Your task to perform on an android device: turn on improve location accuracy Image 0: 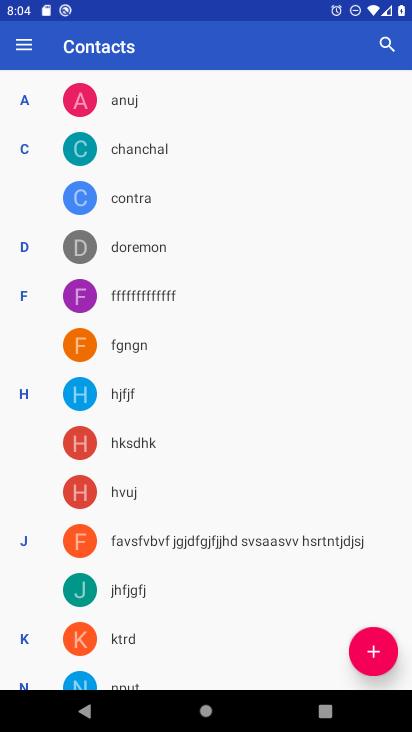
Step 0: press home button
Your task to perform on an android device: turn on improve location accuracy Image 1: 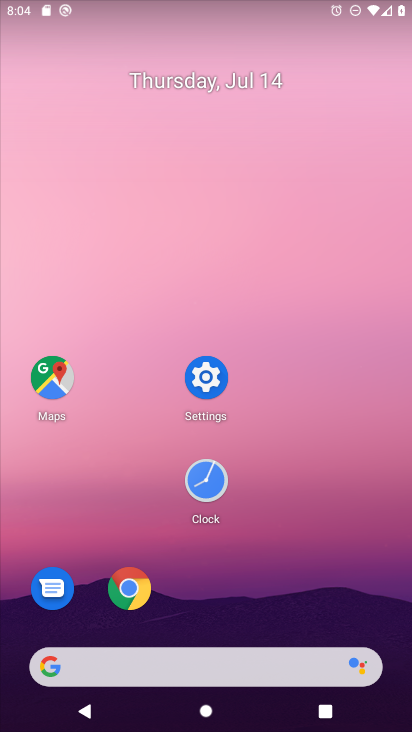
Step 1: click (210, 365)
Your task to perform on an android device: turn on improve location accuracy Image 2: 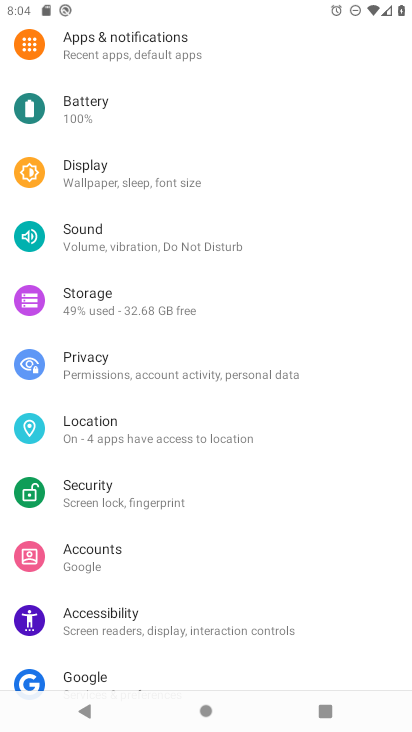
Step 2: click (199, 374)
Your task to perform on an android device: turn on improve location accuracy Image 3: 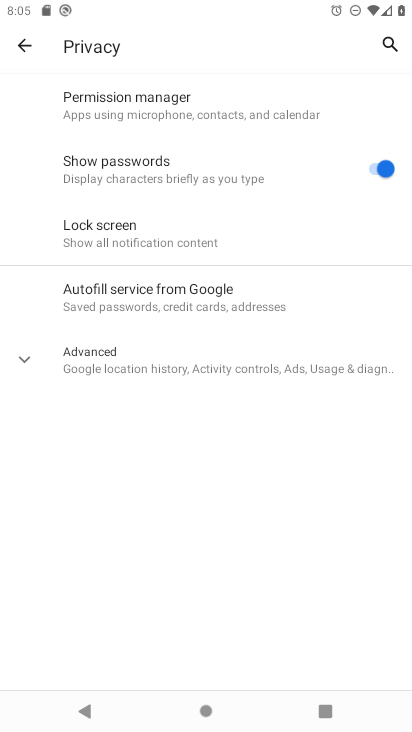
Step 3: click (17, 49)
Your task to perform on an android device: turn on improve location accuracy Image 4: 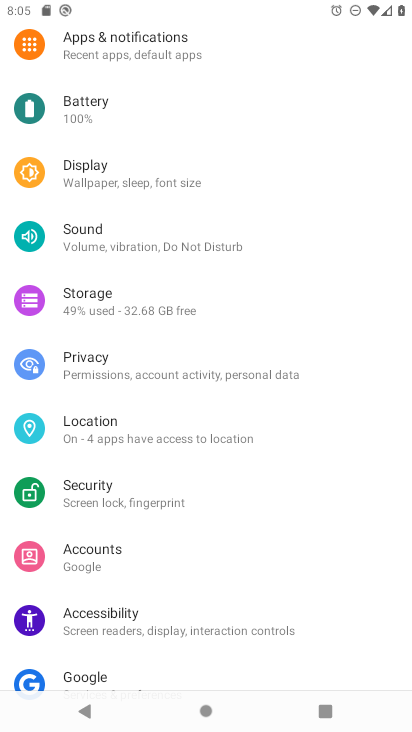
Step 4: click (90, 434)
Your task to perform on an android device: turn on improve location accuracy Image 5: 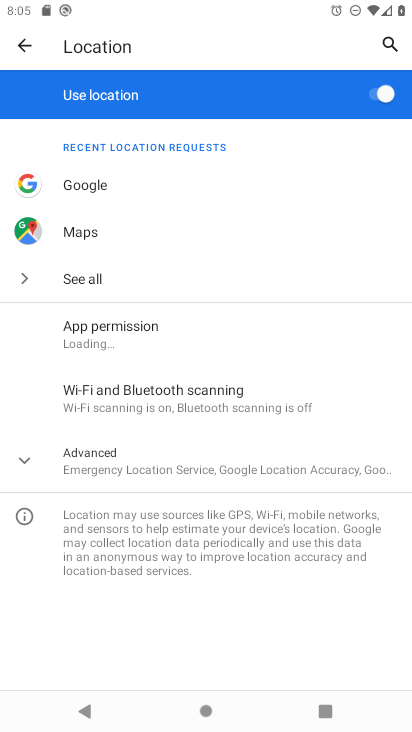
Step 5: click (17, 458)
Your task to perform on an android device: turn on improve location accuracy Image 6: 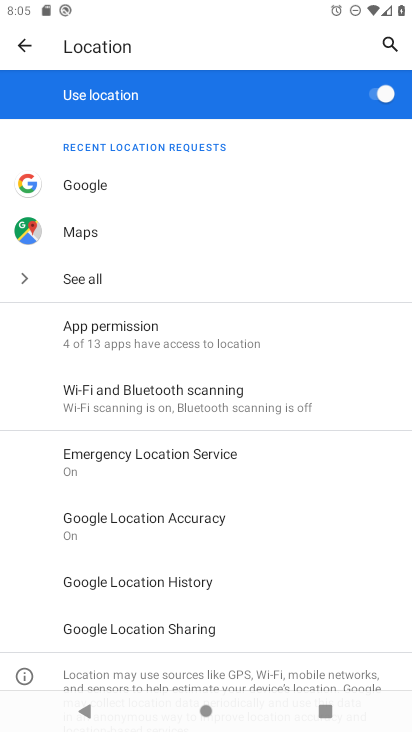
Step 6: click (176, 525)
Your task to perform on an android device: turn on improve location accuracy Image 7: 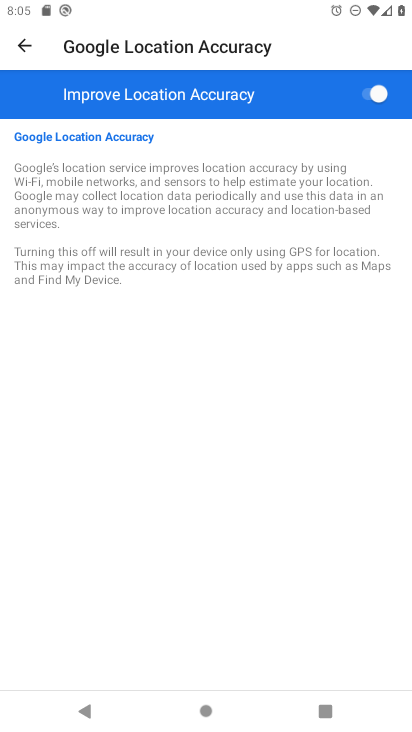
Step 7: task complete